Your task to perform on an android device: toggle data saver in the chrome app Image 0: 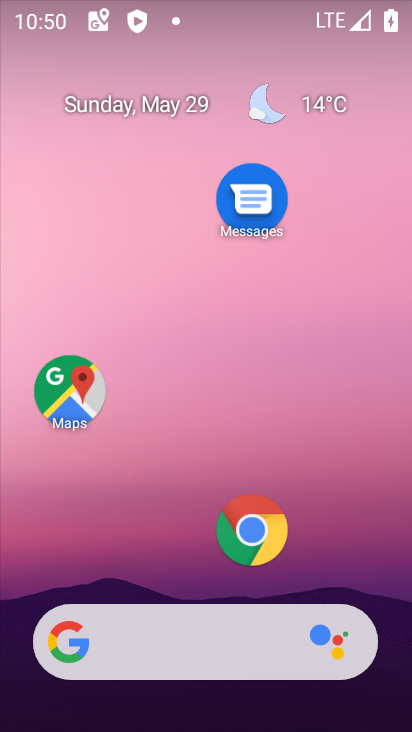
Step 0: click (257, 521)
Your task to perform on an android device: toggle data saver in the chrome app Image 1: 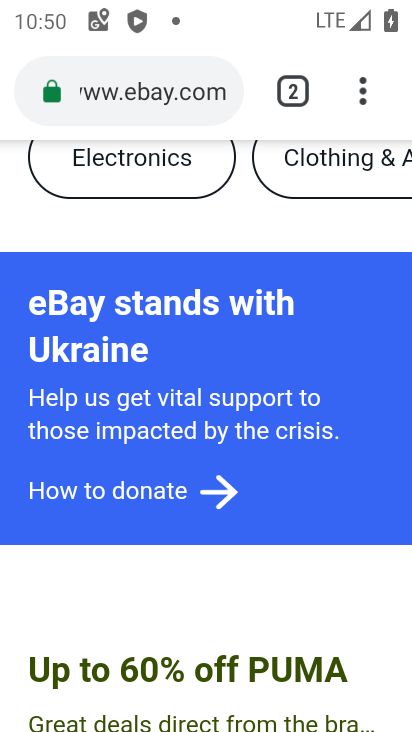
Step 1: click (362, 88)
Your task to perform on an android device: toggle data saver in the chrome app Image 2: 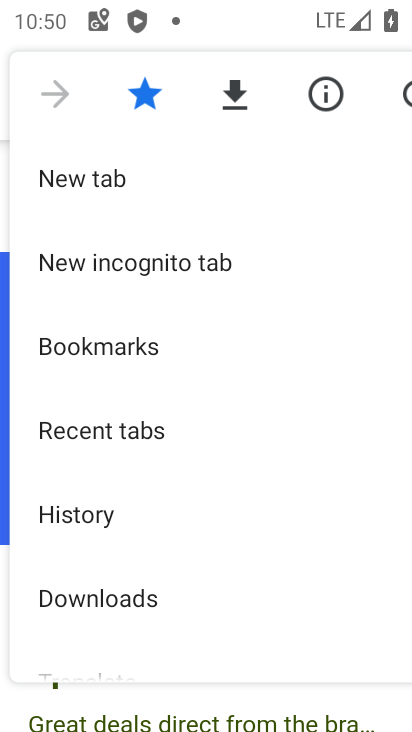
Step 2: drag from (160, 607) to (244, 280)
Your task to perform on an android device: toggle data saver in the chrome app Image 3: 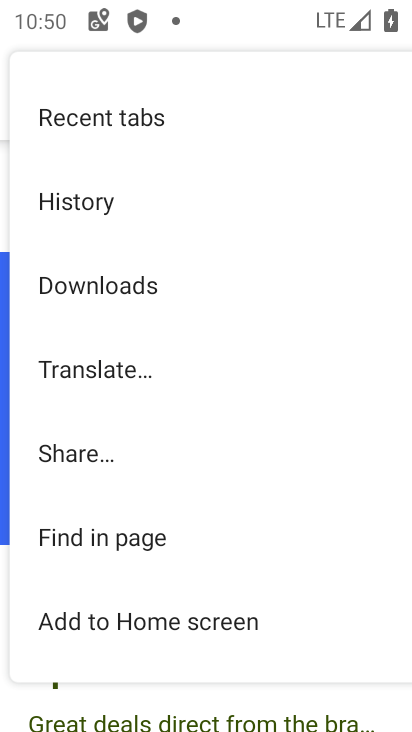
Step 3: drag from (157, 559) to (216, 150)
Your task to perform on an android device: toggle data saver in the chrome app Image 4: 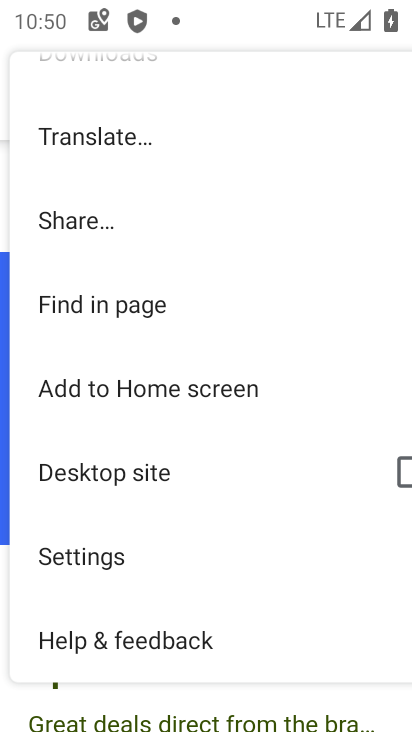
Step 4: click (120, 573)
Your task to perform on an android device: toggle data saver in the chrome app Image 5: 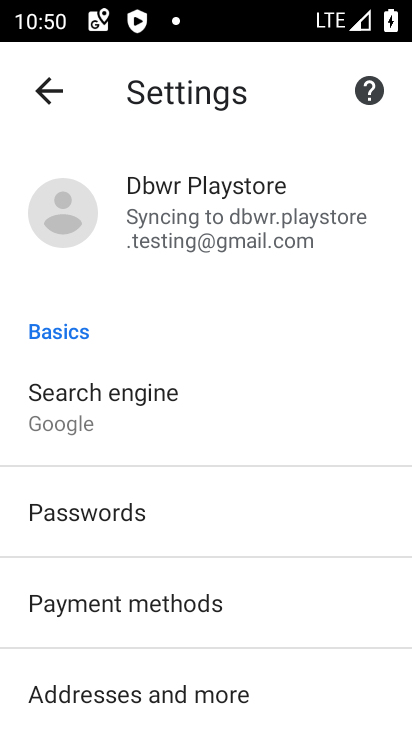
Step 5: drag from (159, 579) to (245, 151)
Your task to perform on an android device: toggle data saver in the chrome app Image 6: 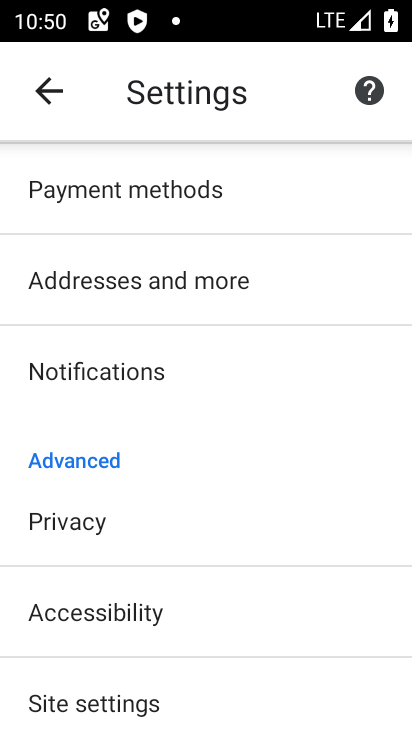
Step 6: drag from (181, 479) to (195, 312)
Your task to perform on an android device: toggle data saver in the chrome app Image 7: 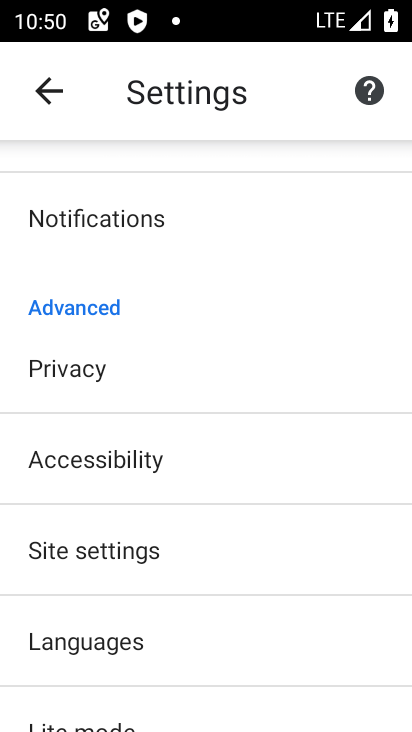
Step 7: click (144, 551)
Your task to perform on an android device: toggle data saver in the chrome app Image 8: 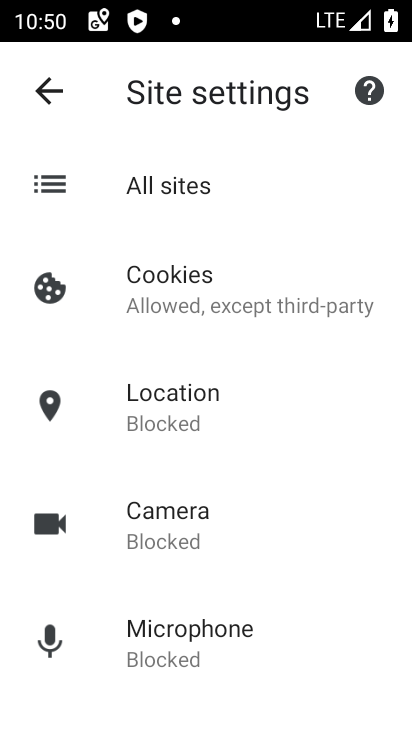
Step 8: drag from (218, 517) to (226, 373)
Your task to perform on an android device: toggle data saver in the chrome app Image 9: 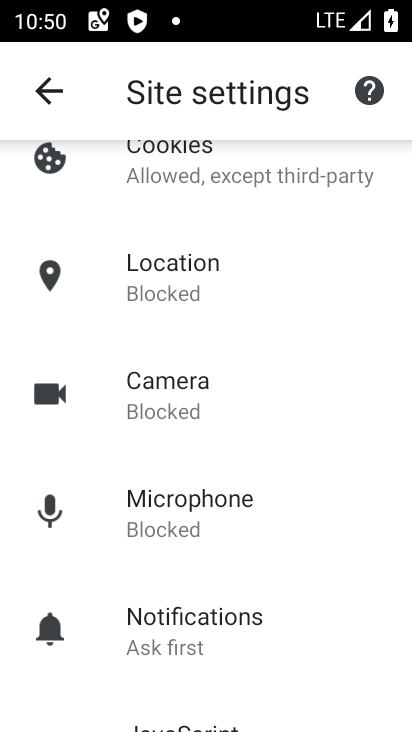
Step 9: drag from (211, 589) to (213, 441)
Your task to perform on an android device: toggle data saver in the chrome app Image 10: 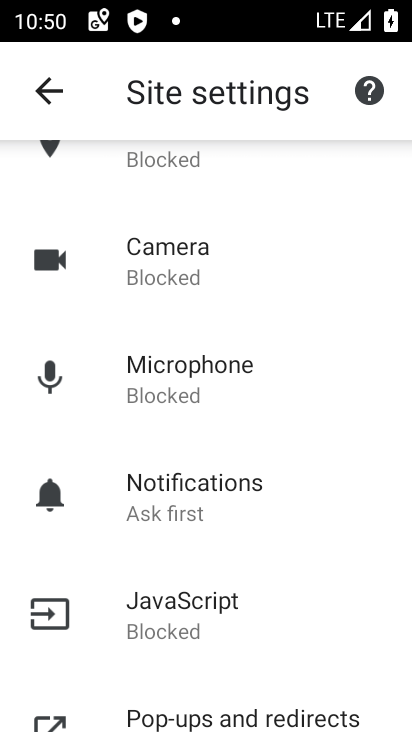
Step 10: click (65, 81)
Your task to perform on an android device: toggle data saver in the chrome app Image 11: 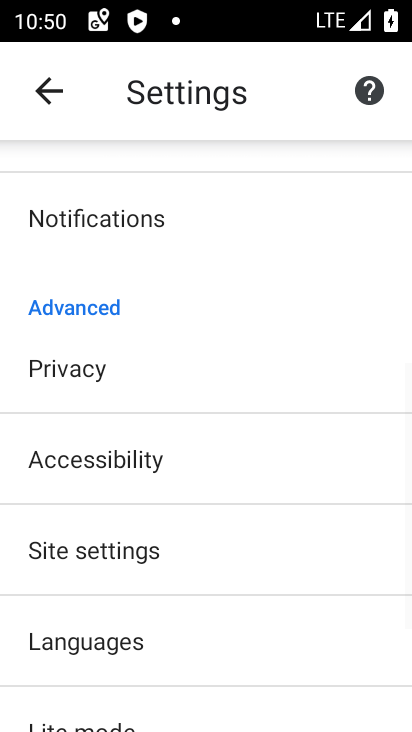
Step 11: drag from (106, 670) to (129, 469)
Your task to perform on an android device: toggle data saver in the chrome app Image 12: 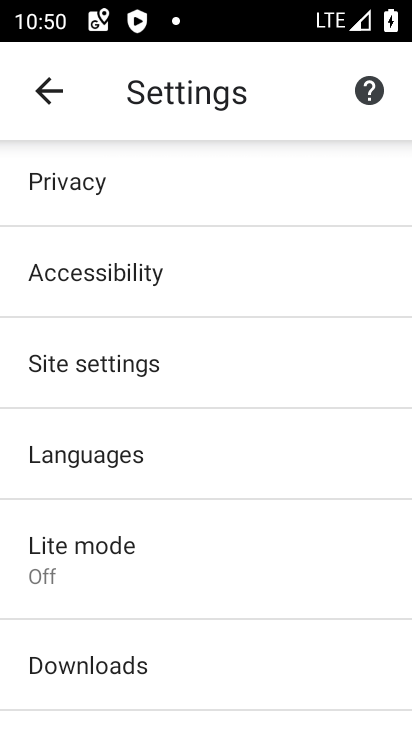
Step 12: click (104, 581)
Your task to perform on an android device: toggle data saver in the chrome app Image 13: 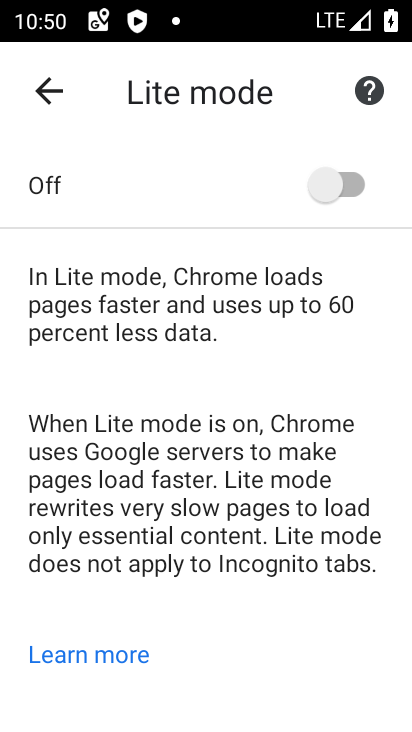
Step 13: click (360, 178)
Your task to perform on an android device: toggle data saver in the chrome app Image 14: 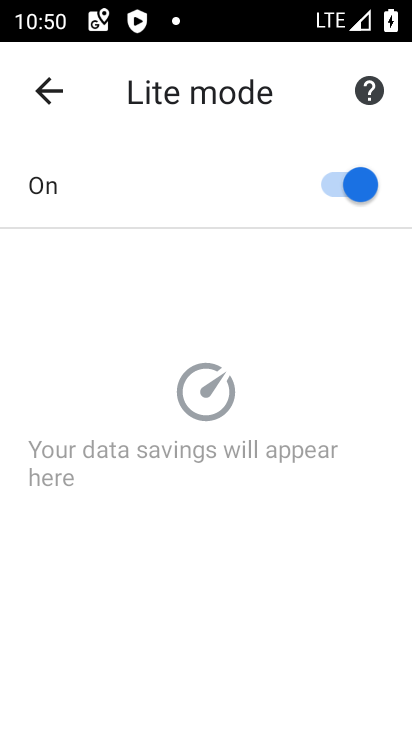
Step 14: task complete